Your task to perform on an android device: set the stopwatch Image 0: 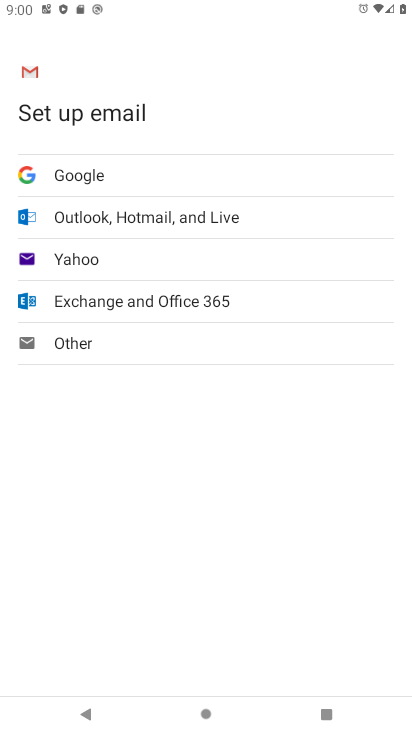
Step 0: press home button
Your task to perform on an android device: set the stopwatch Image 1: 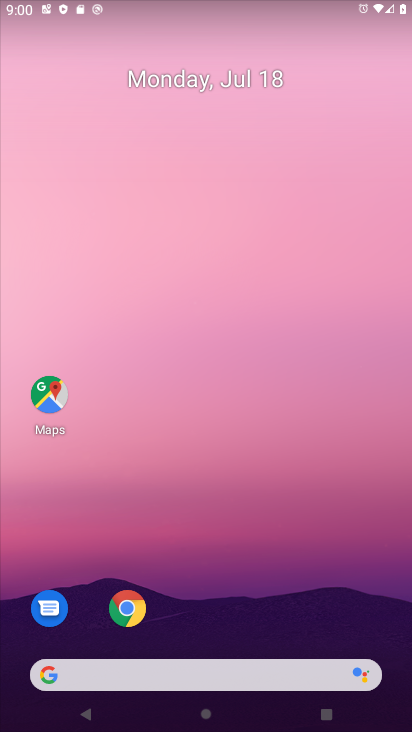
Step 1: drag from (234, 722) to (233, 135)
Your task to perform on an android device: set the stopwatch Image 2: 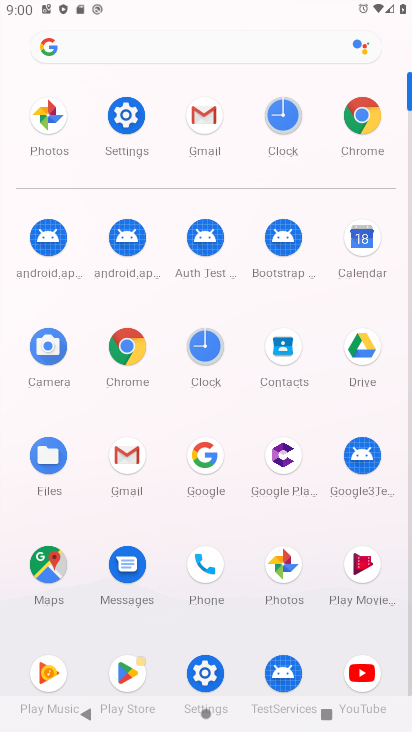
Step 2: click (201, 351)
Your task to perform on an android device: set the stopwatch Image 3: 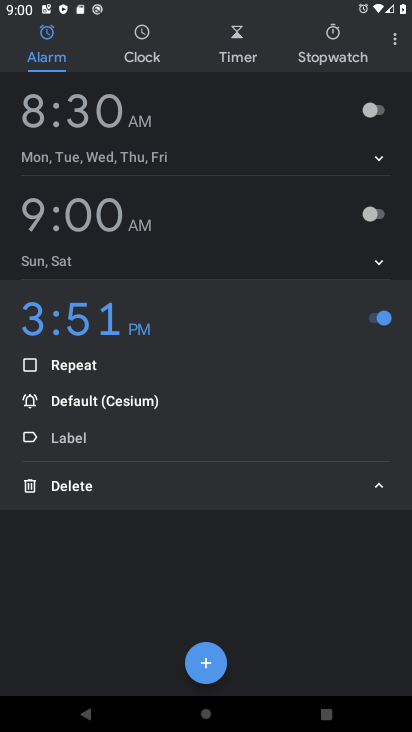
Step 3: click (326, 47)
Your task to perform on an android device: set the stopwatch Image 4: 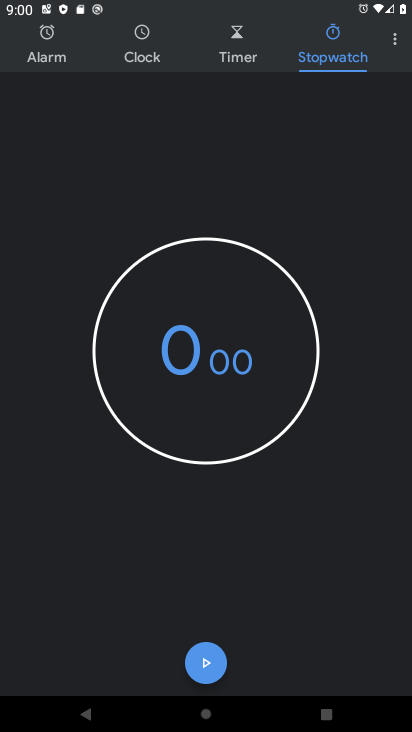
Step 4: task complete